Your task to perform on an android device: Open Maps and search for coffee Image 0: 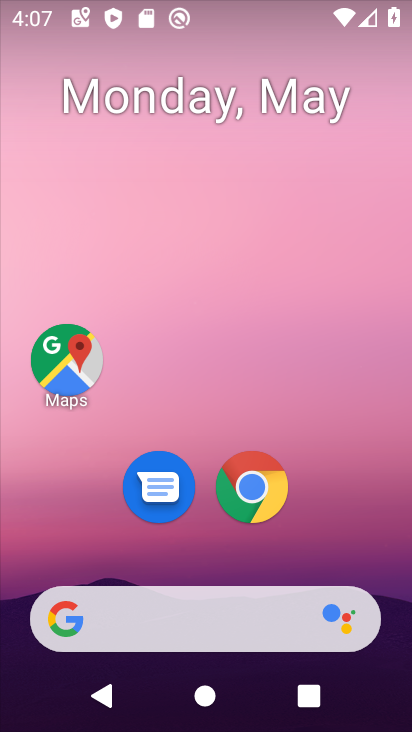
Step 0: click (83, 366)
Your task to perform on an android device: Open Maps and search for coffee Image 1: 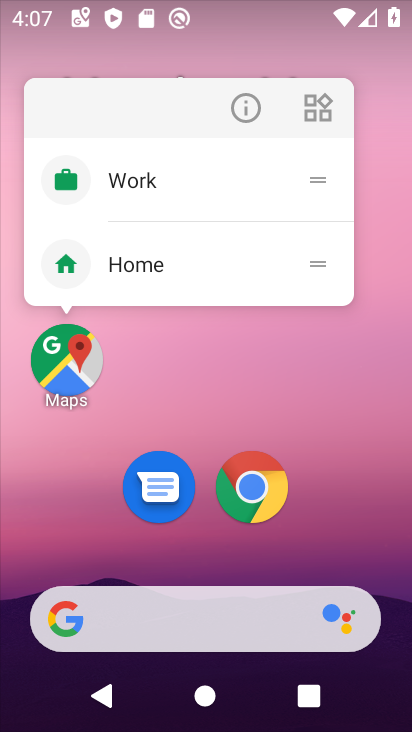
Step 1: click (69, 352)
Your task to perform on an android device: Open Maps and search for coffee Image 2: 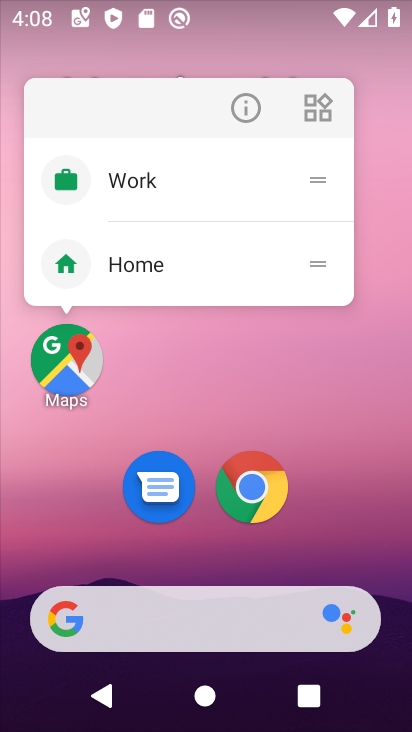
Step 2: click (69, 385)
Your task to perform on an android device: Open Maps and search for coffee Image 3: 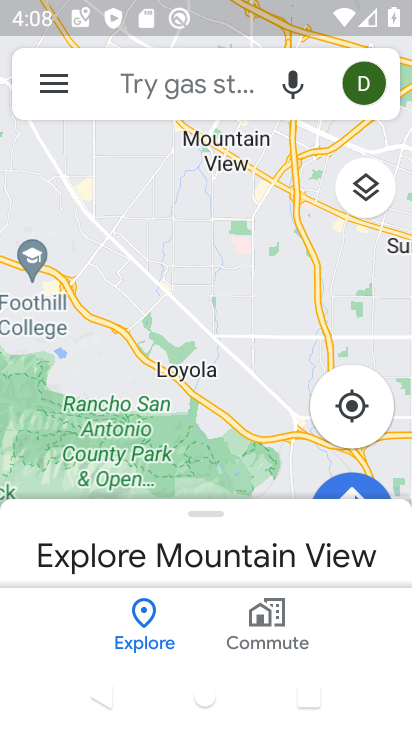
Step 3: click (221, 88)
Your task to perform on an android device: Open Maps and search for coffee Image 4: 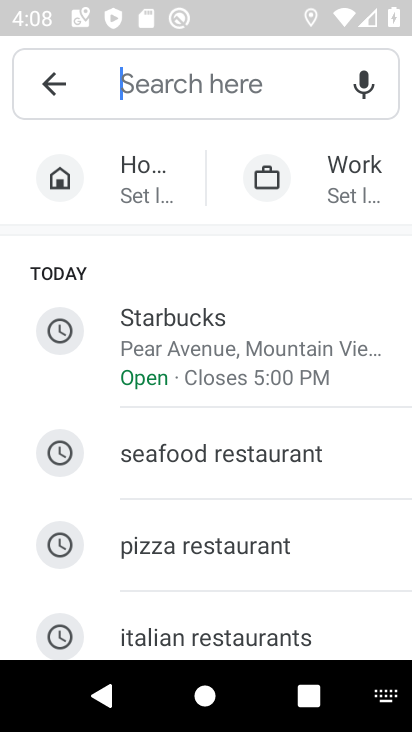
Step 4: drag from (231, 614) to (246, 368)
Your task to perform on an android device: Open Maps and search for coffee Image 5: 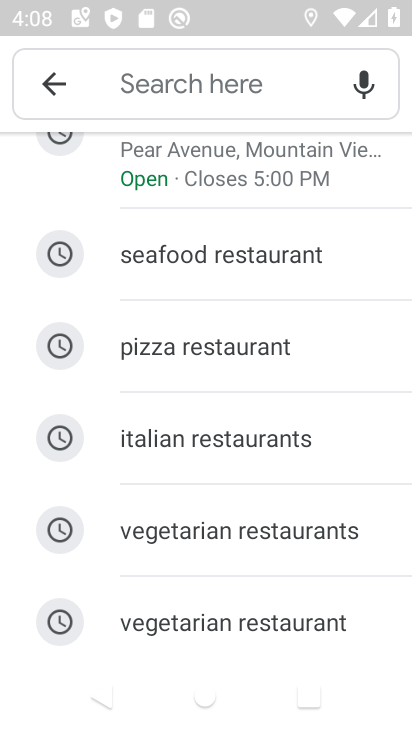
Step 5: type "coffee"
Your task to perform on an android device: Open Maps and search for coffee Image 6: 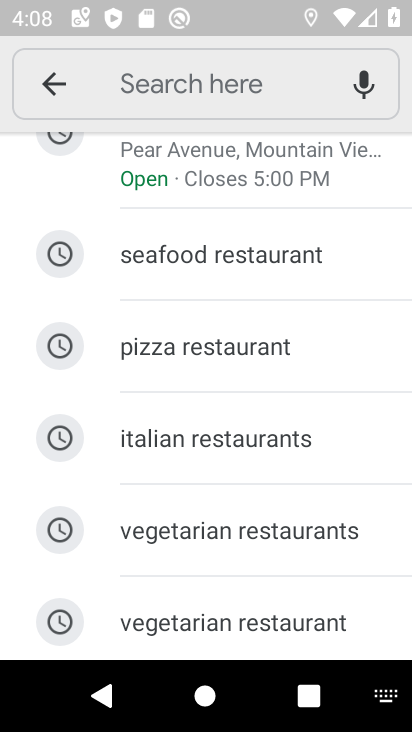
Step 6: drag from (238, 228) to (211, 408)
Your task to perform on an android device: Open Maps and search for coffee Image 7: 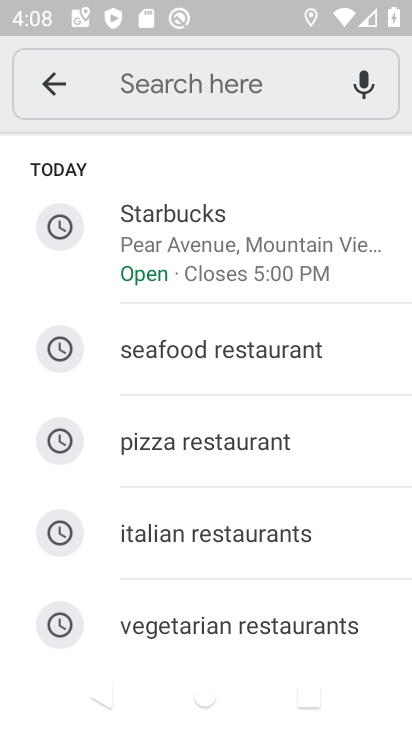
Step 7: click (180, 80)
Your task to perform on an android device: Open Maps and search for coffee Image 8: 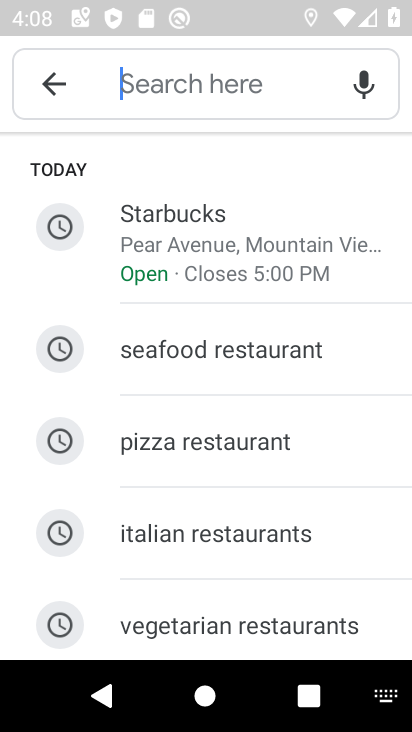
Step 8: type "coffee"
Your task to perform on an android device: Open Maps and search for coffee Image 9: 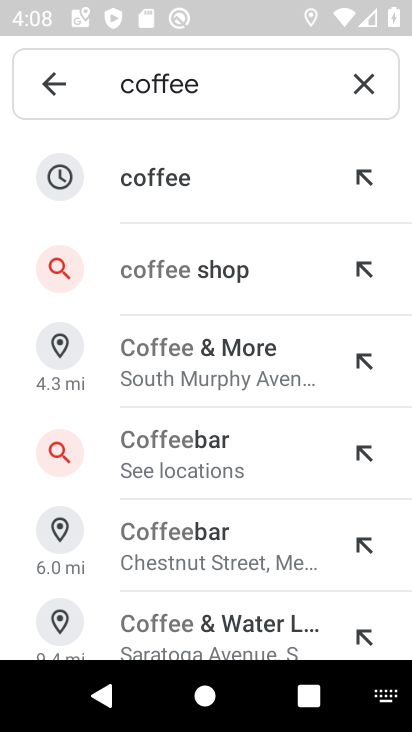
Step 9: click (185, 276)
Your task to perform on an android device: Open Maps and search for coffee Image 10: 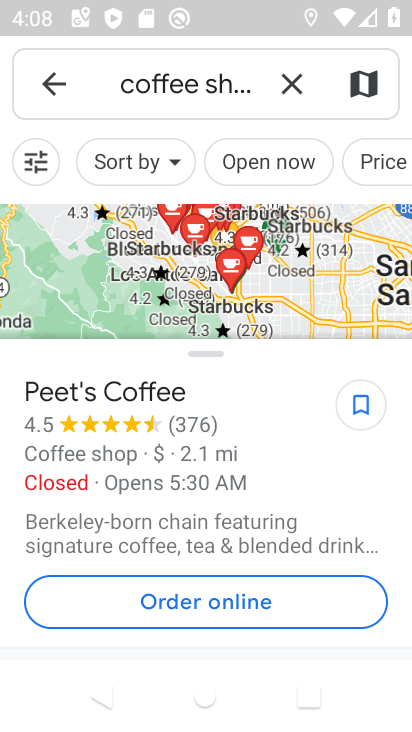
Step 10: task complete